Your task to perform on an android device: Open Google Maps and go to "Timeline" Image 0: 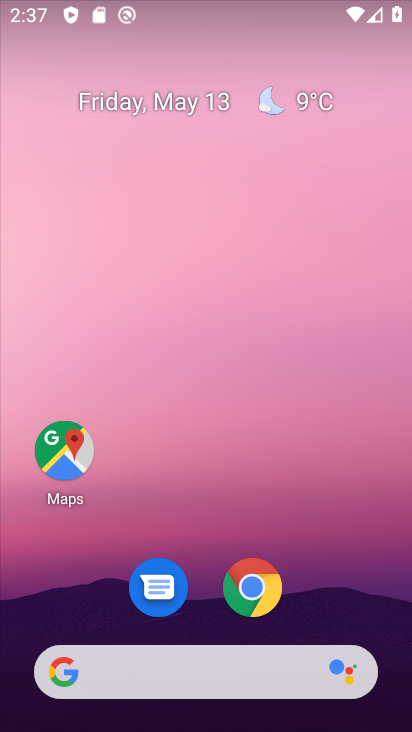
Step 0: click (68, 464)
Your task to perform on an android device: Open Google Maps and go to "Timeline" Image 1: 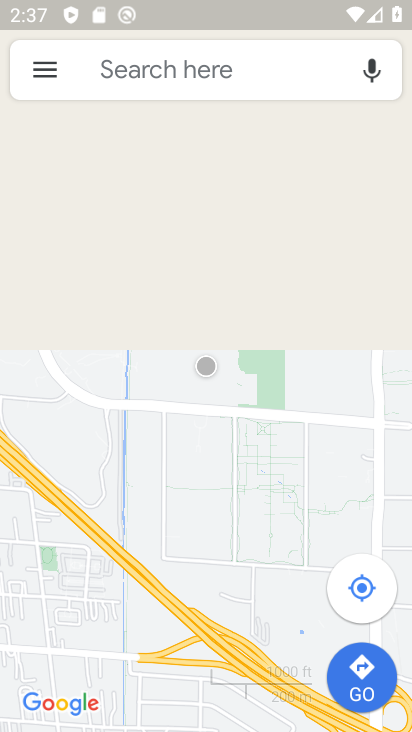
Step 1: click (56, 71)
Your task to perform on an android device: Open Google Maps and go to "Timeline" Image 2: 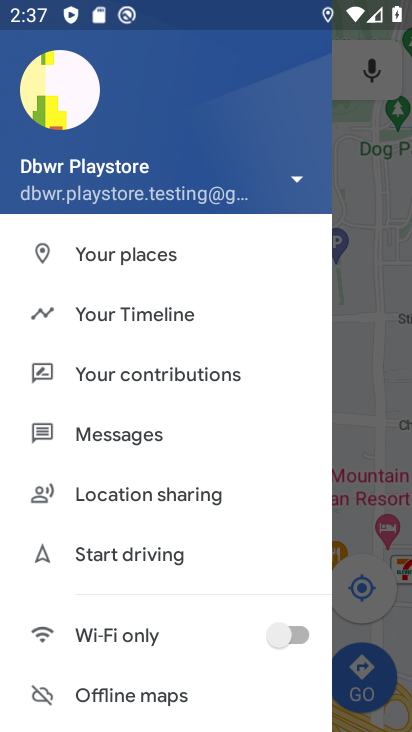
Step 2: drag from (127, 663) to (130, 289)
Your task to perform on an android device: Open Google Maps and go to "Timeline" Image 3: 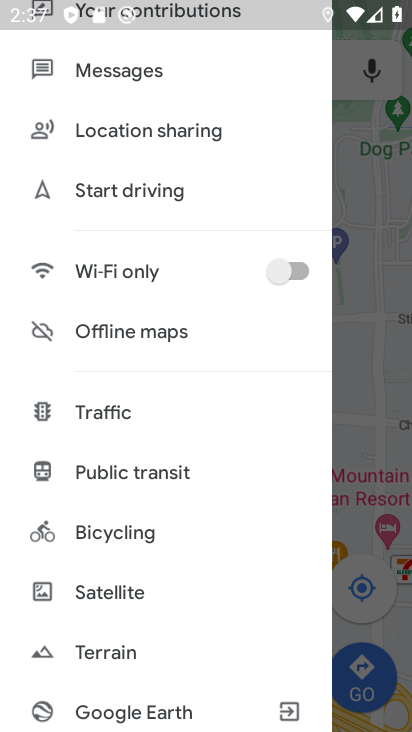
Step 3: drag from (140, 634) to (137, 262)
Your task to perform on an android device: Open Google Maps and go to "Timeline" Image 4: 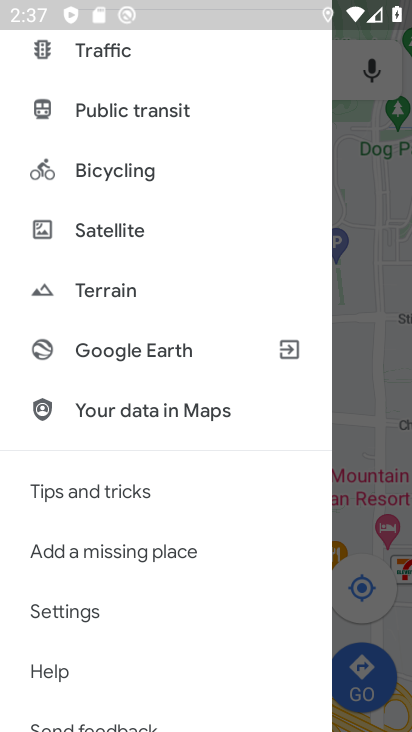
Step 4: drag from (147, 671) to (169, 704)
Your task to perform on an android device: Open Google Maps and go to "Timeline" Image 5: 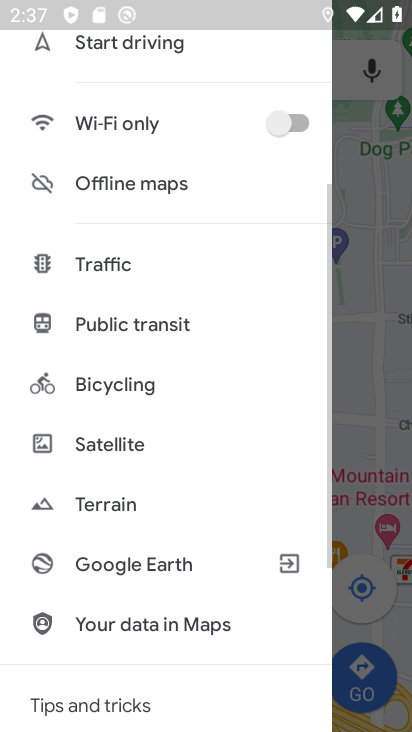
Step 5: drag from (157, 257) to (176, 628)
Your task to perform on an android device: Open Google Maps and go to "Timeline" Image 6: 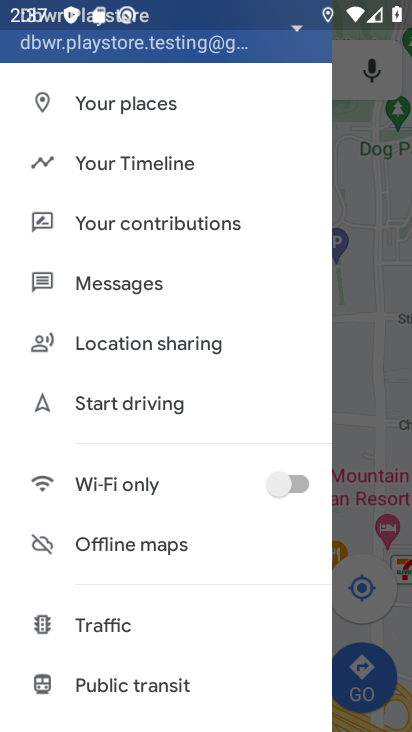
Step 6: click (172, 166)
Your task to perform on an android device: Open Google Maps and go to "Timeline" Image 7: 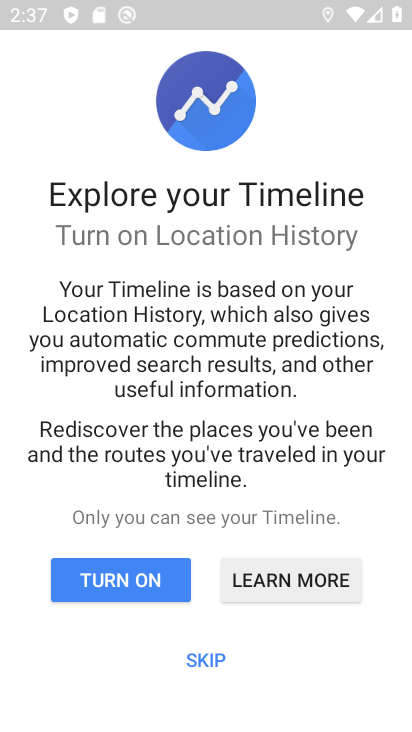
Step 7: click (202, 664)
Your task to perform on an android device: Open Google Maps and go to "Timeline" Image 8: 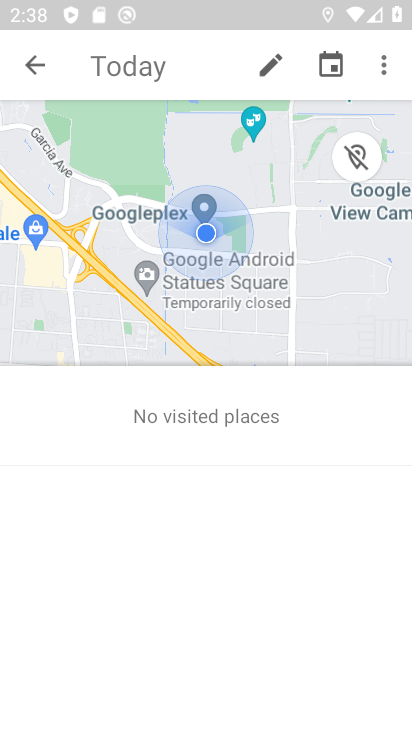
Step 8: task complete